Your task to perform on an android device: Search for pizza restaurants on Maps Image 0: 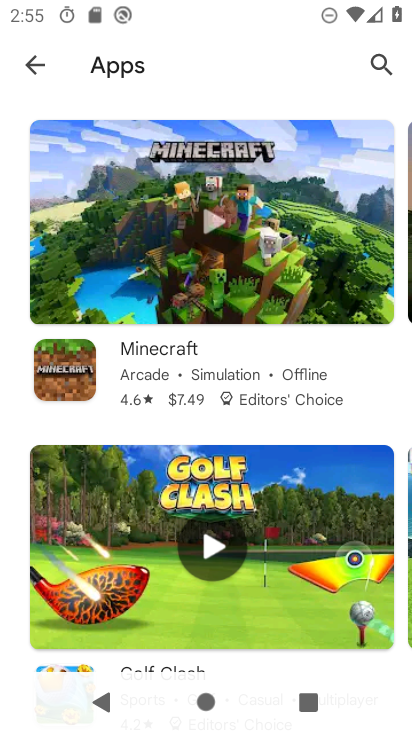
Step 0: press home button
Your task to perform on an android device: Search for pizza restaurants on Maps Image 1: 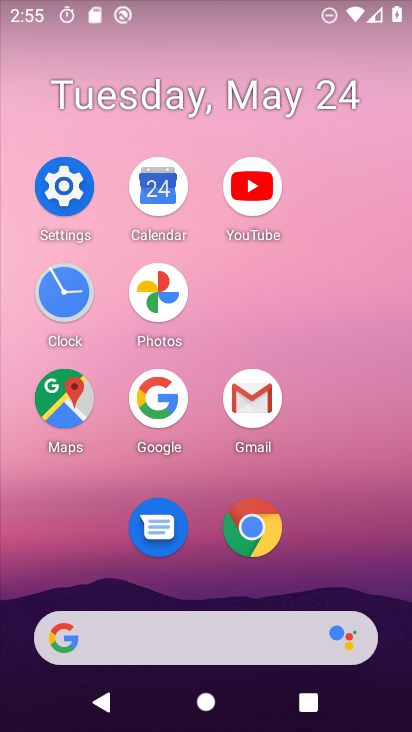
Step 1: click (80, 404)
Your task to perform on an android device: Search for pizza restaurants on Maps Image 2: 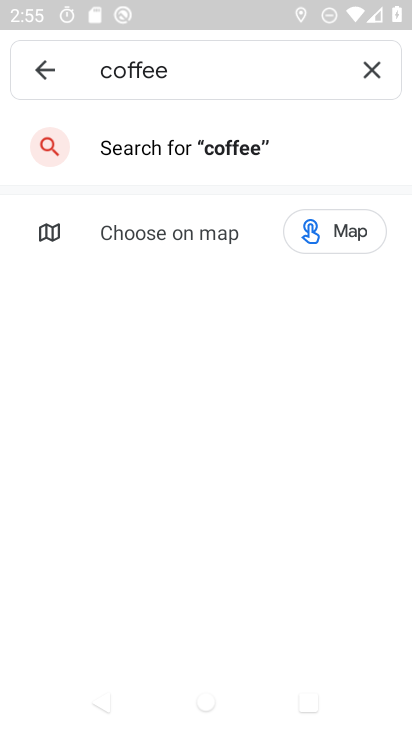
Step 2: click (371, 56)
Your task to perform on an android device: Search for pizza restaurants on Maps Image 3: 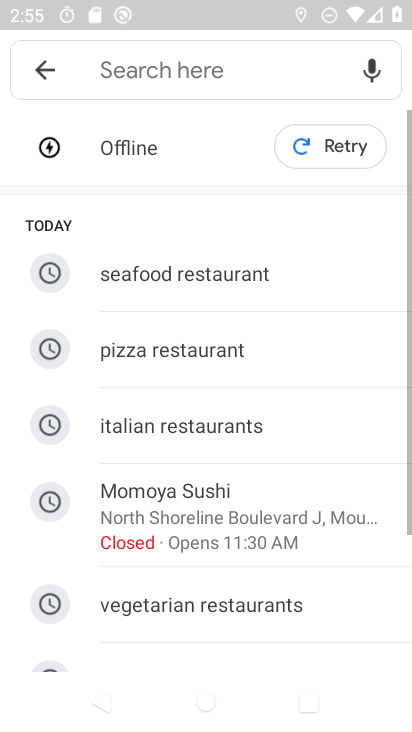
Step 3: click (237, 73)
Your task to perform on an android device: Search for pizza restaurants on Maps Image 4: 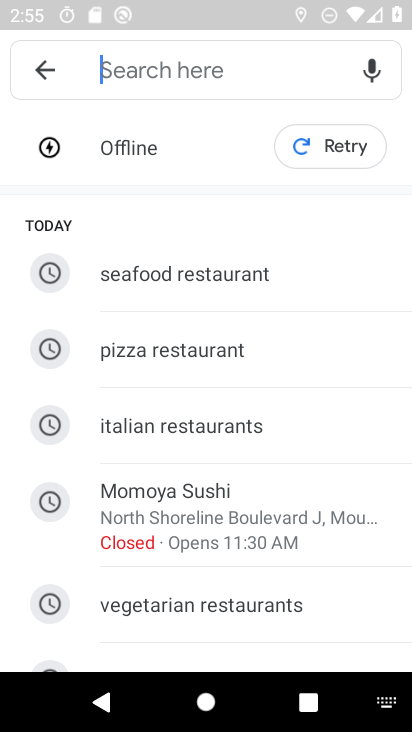
Step 4: click (235, 352)
Your task to perform on an android device: Search for pizza restaurants on Maps Image 5: 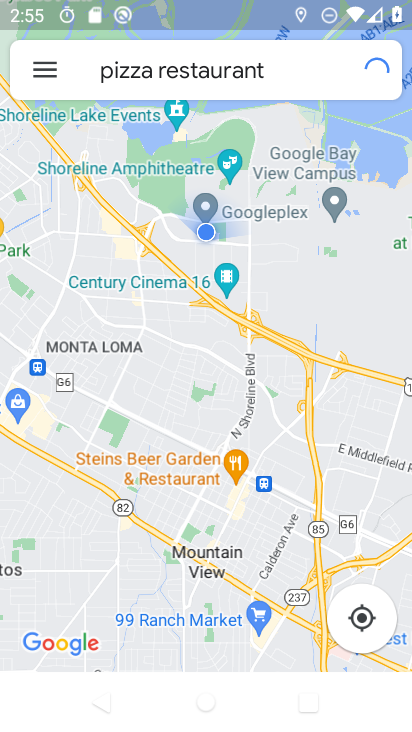
Step 5: task complete